Your task to perform on an android device: turn off translation in the chrome app Image 0: 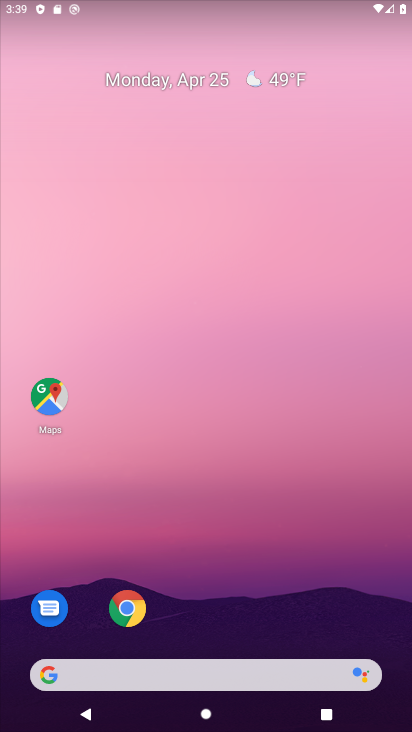
Step 0: drag from (227, 481) to (226, 96)
Your task to perform on an android device: turn off translation in the chrome app Image 1: 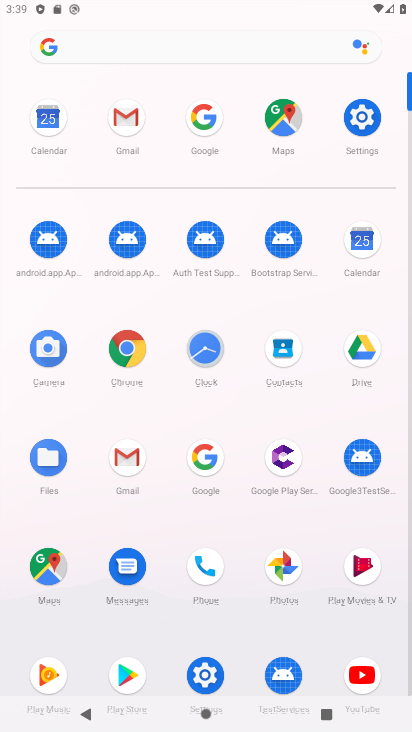
Step 1: click (136, 372)
Your task to perform on an android device: turn off translation in the chrome app Image 2: 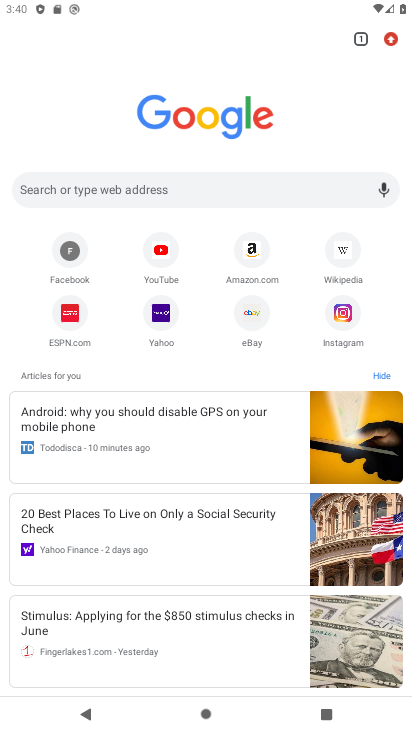
Step 2: click (381, 35)
Your task to perform on an android device: turn off translation in the chrome app Image 3: 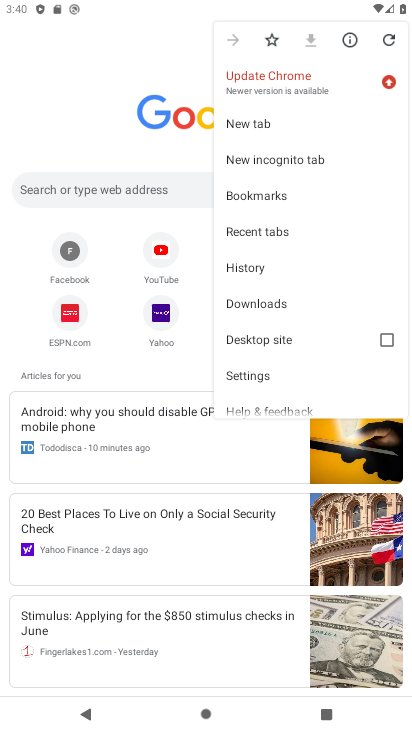
Step 3: task complete